Your task to perform on an android device: Open battery settings Image 0: 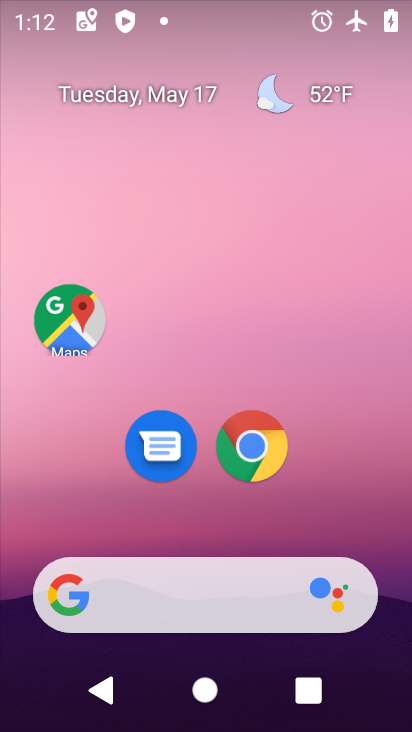
Step 0: drag from (227, 541) to (227, 229)
Your task to perform on an android device: Open battery settings Image 1: 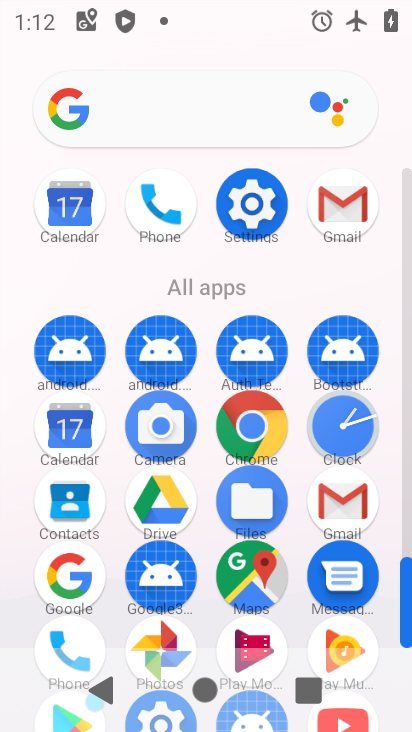
Step 1: click (248, 203)
Your task to perform on an android device: Open battery settings Image 2: 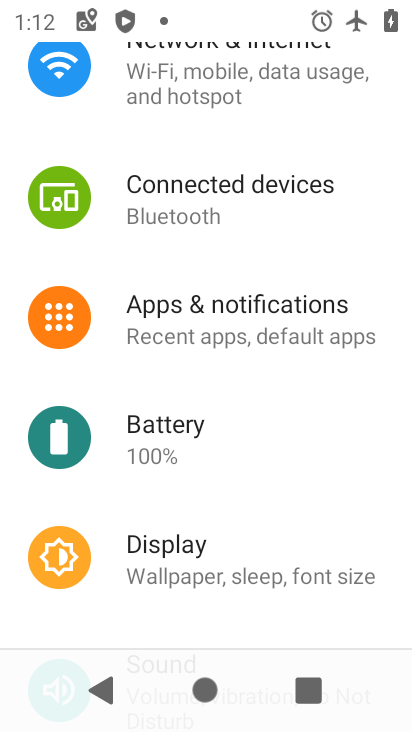
Step 2: click (184, 463)
Your task to perform on an android device: Open battery settings Image 3: 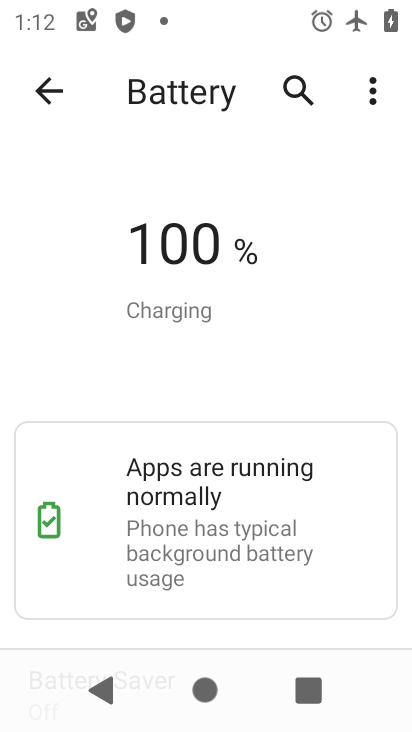
Step 3: task complete